Your task to perform on an android device: What is the news today? Image 0: 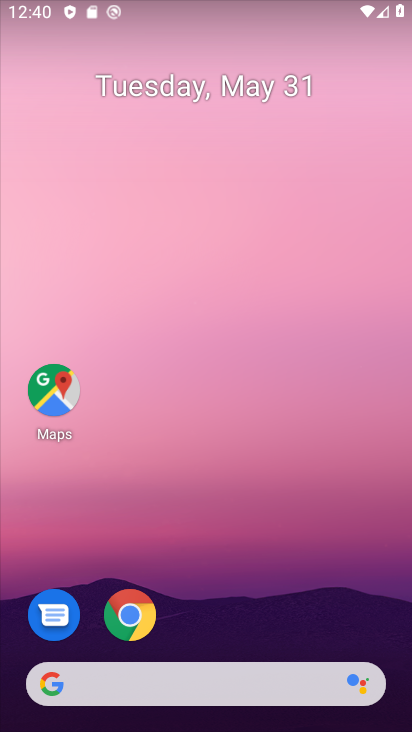
Step 0: drag from (354, 505) to (321, 310)
Your task to perform on an android device: What is the news today? Image 1: 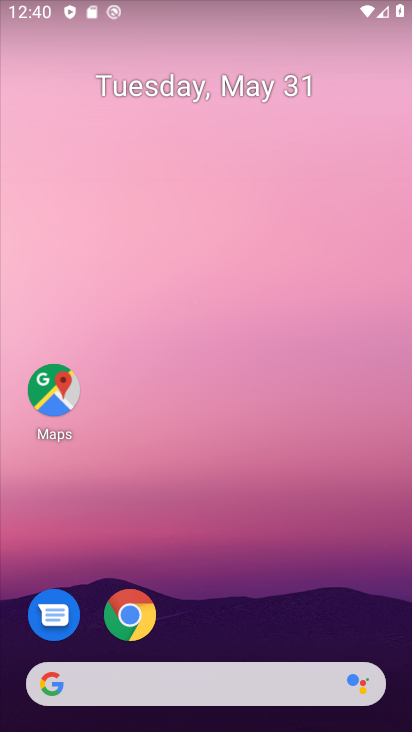
Step 1: drag from (363, 598) to (288, 202)
Your task to perform on an android device: What is the news today? Image 2: 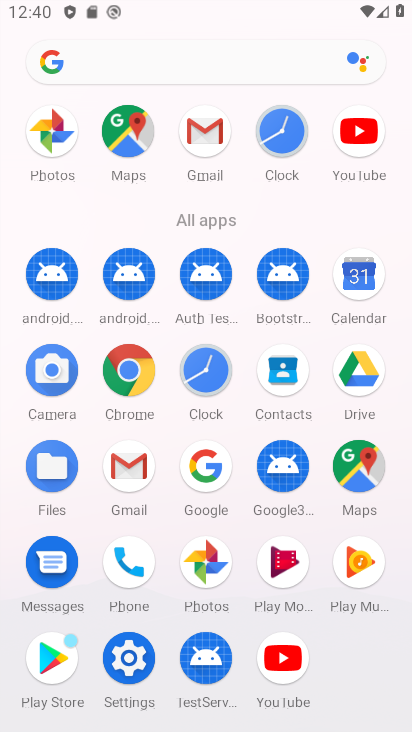
Step 2: click (131, 376)
Your task to perform on an android device: What is the news today? Image 3: 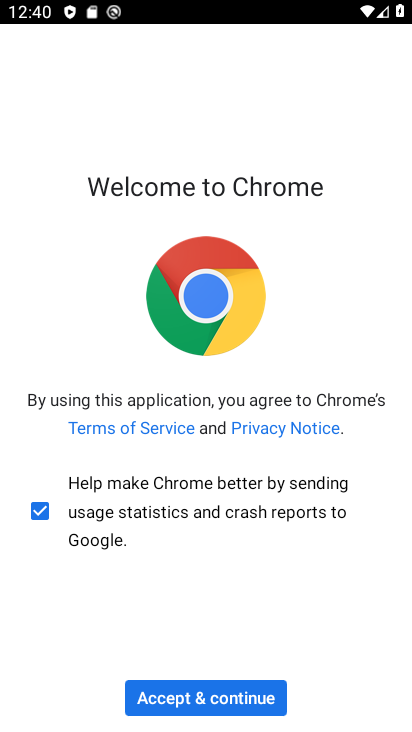
Step 3: click (223, 704)
Your task to perform on an android device: What is the news today? Image 4: 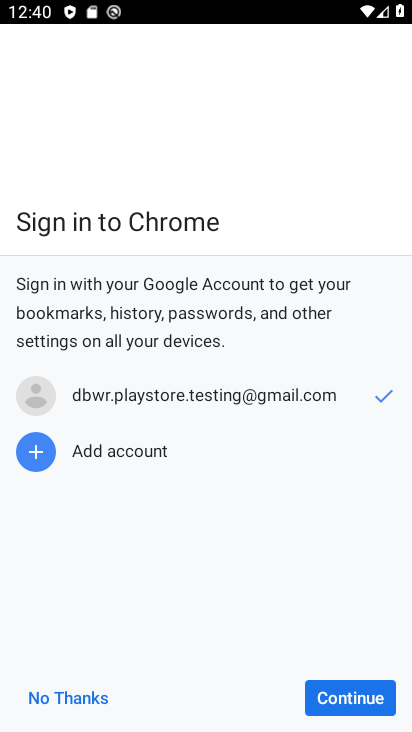
Step 4: click (355, 709)
Your task to perform on an android device: What is the news today? Image 5: 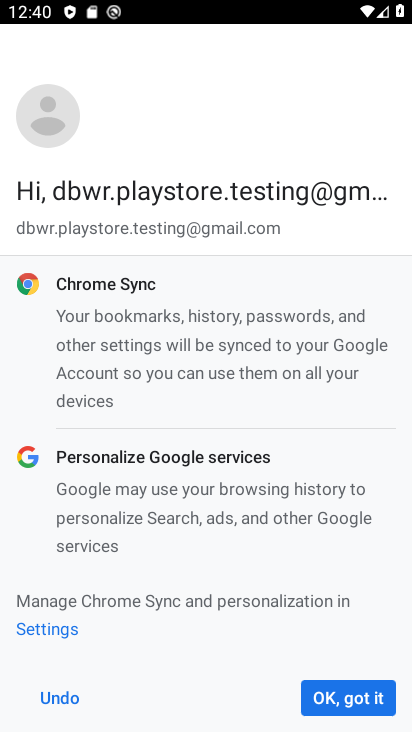
Step 5: click (350, 706)
Your task to perform on an android device: What is the news today? Image 6: 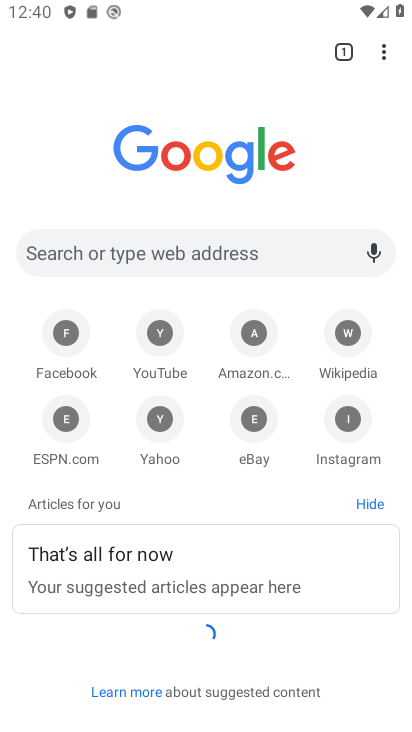
Step 6: click (169, 254)
Your task to perform on an android device: What is the news today? Image 7: 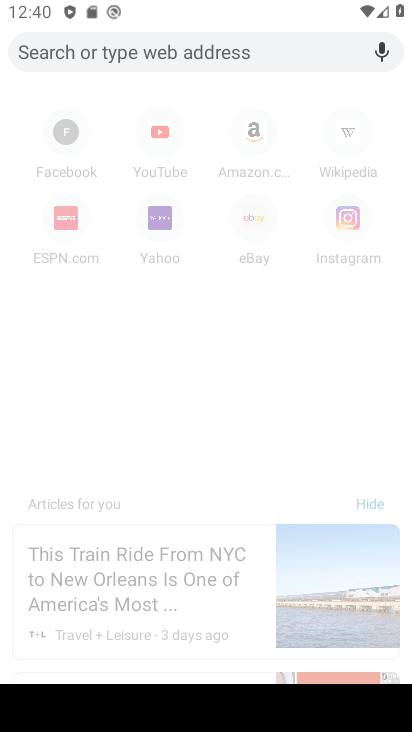
Step 7: type "what is the news today"
Your task to perform on an android device: What is the news today? Image 8: 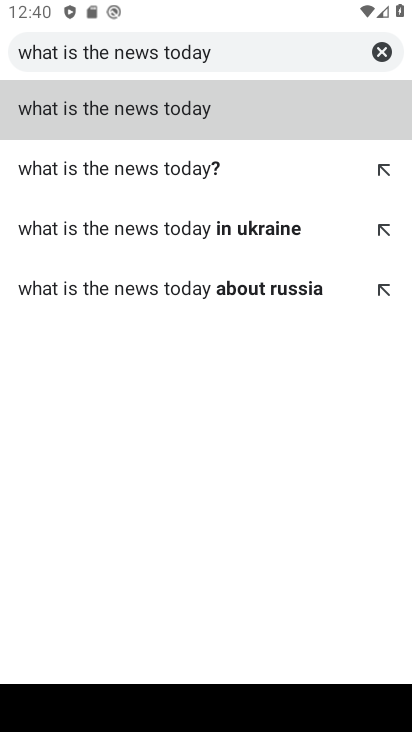
Step 8: click (83, 172)
Your task to perform on an android device: What is the news today? Image 9: 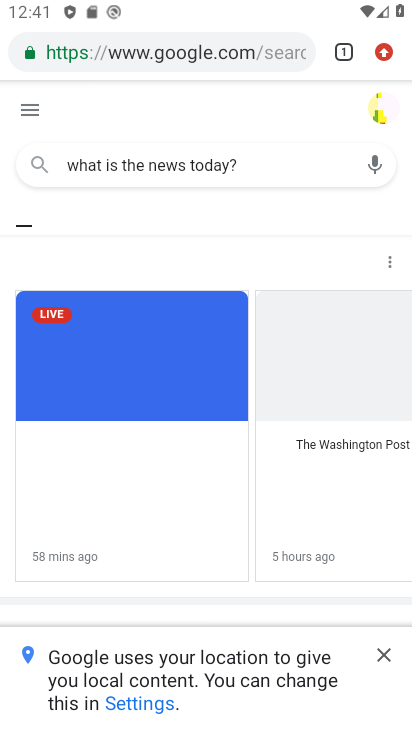
Step 9: click (378, 656)
Your task to perform on an android device: What is the news today? Image 10: 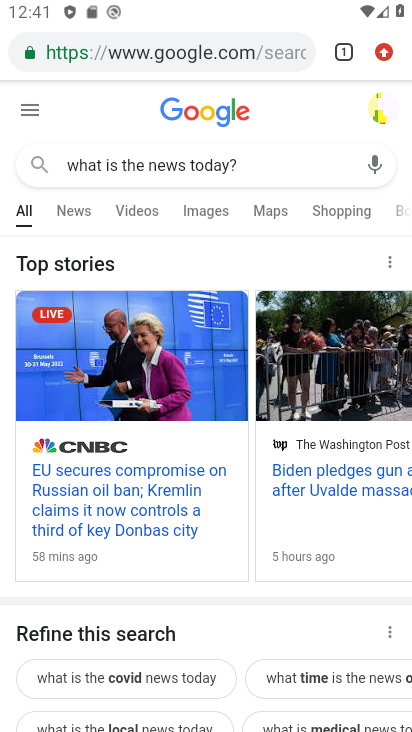
Step 10: task complete